Your task to perform on an android device: turn off wifi Image 0: 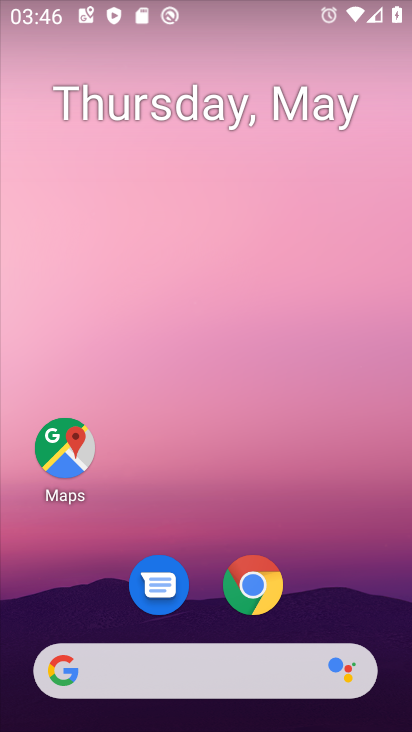
Step 0: drag from (203, 422) to (238, 21)
Your task to perform on an android device: turn off wifi Image 1: 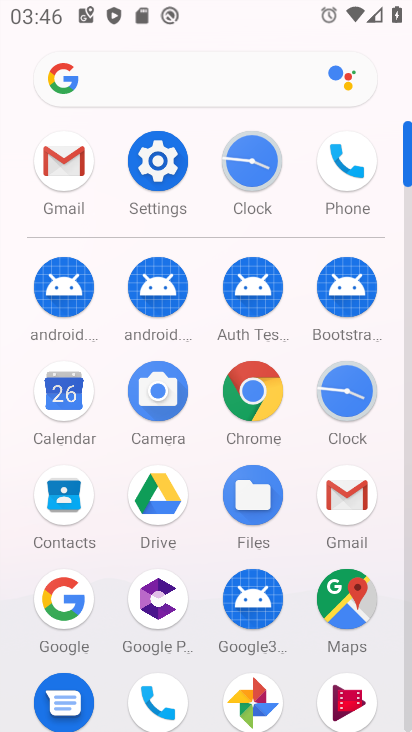
Step 1: click (172, 162)
Your task to perform on an android device: turn off wifi Image 2: 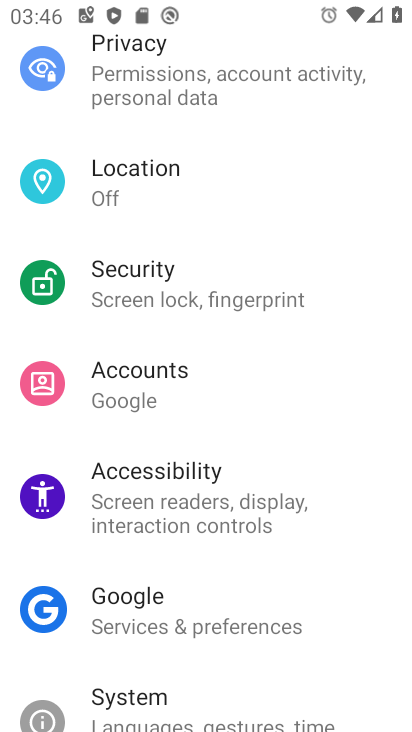
Step 2: drag from (229, 182) to (264, 683)
Your task to perform on an android device: turn off wifi Image 3: 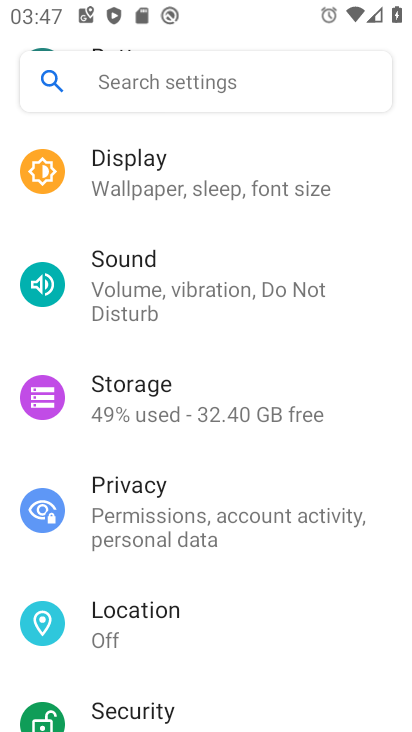
Step 3: drag from (238, 235) to (278, 668)
Your task to perform on an android device: turn off wifi Image 4: 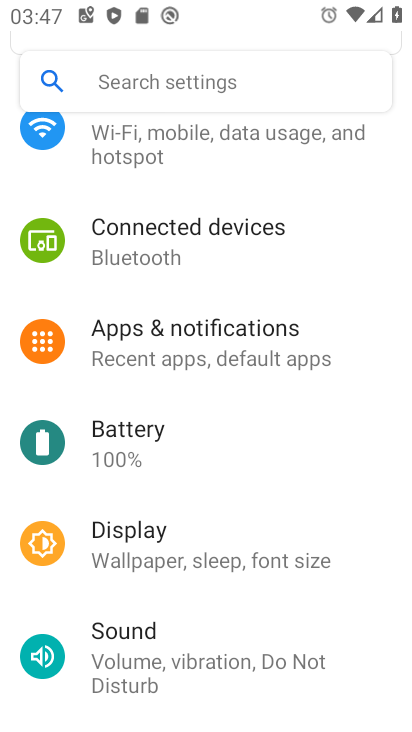
Step 4: drag from (224, 241) to (204, 542)
Your task to perform on an android device: turn off wifi Image 5: 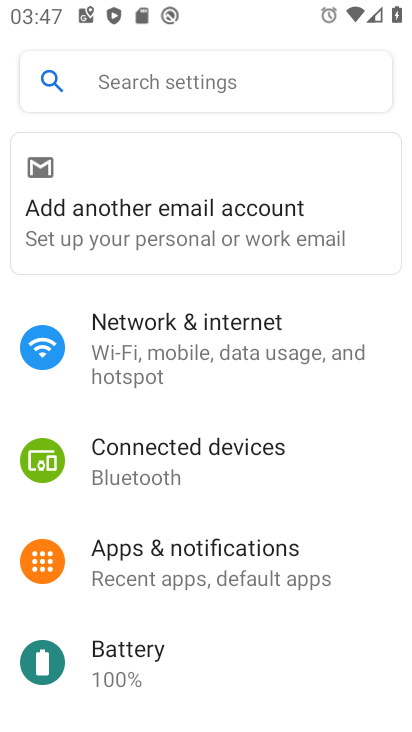
Step 5: click (191, 333)
Your task to perform on an android device: turn off wifi Image 6: 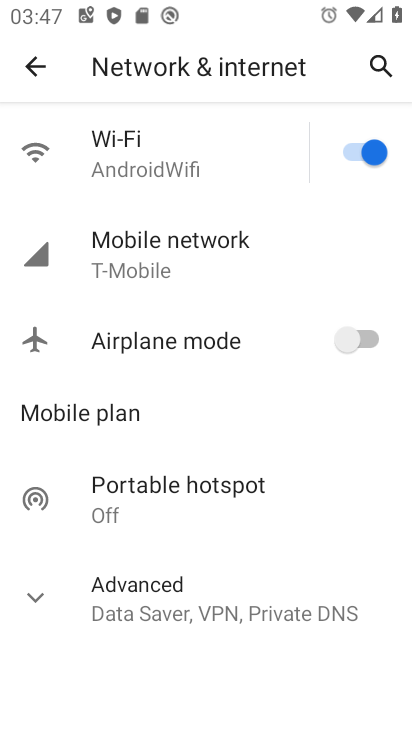
Step 6: click (352, 149)
Your task to perform on an android device: turn off wifi Image 7: 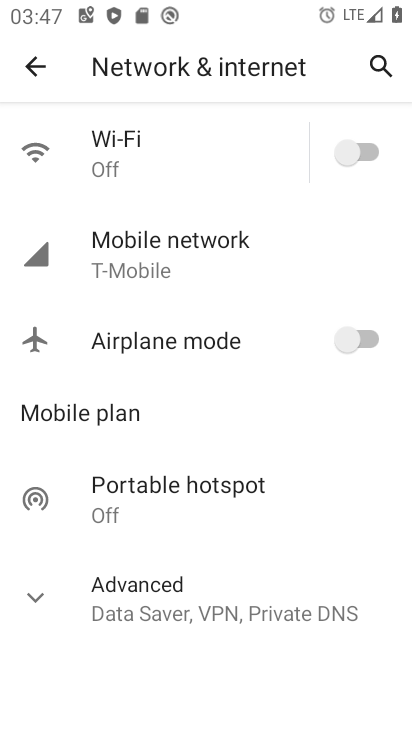
Step 7: task complete